Your task to perform on an android device: open a bookmark in the chrome app Image 0: 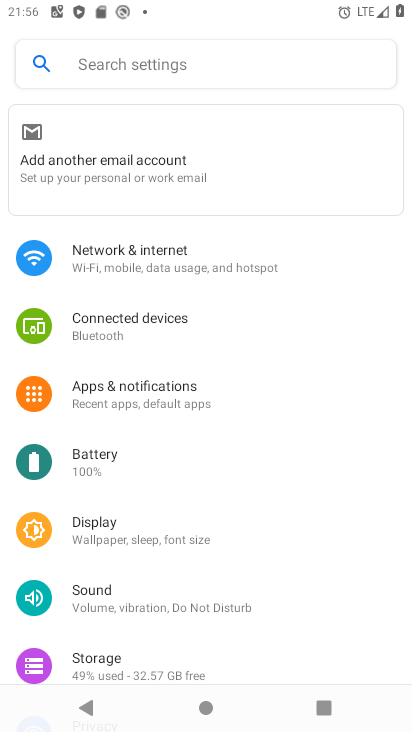
Step 0: press home button
Your task to perform on an android device: open a bookmark in the chrome app Image 1: 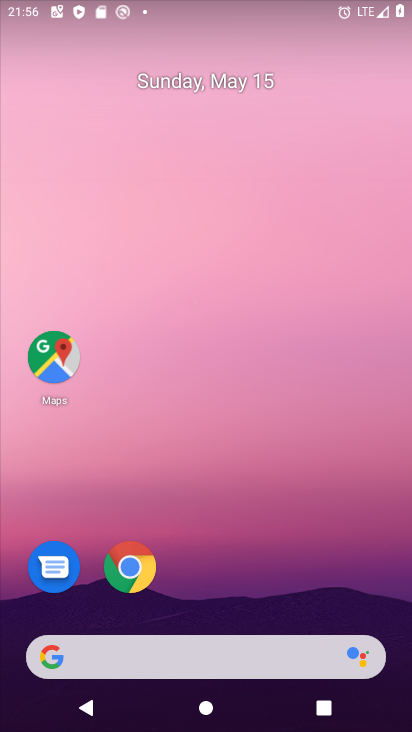
Step 1: click (154, 574)
Your task to perform on an android device: open a bookmark in the chrome app Image 2: 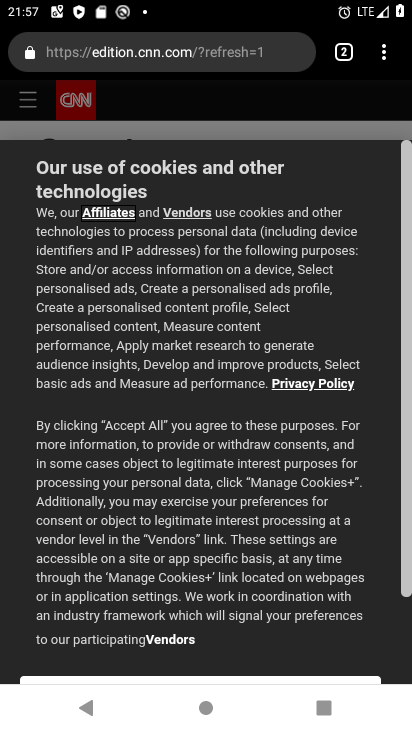
Step 2: click (376, 45)
Your task to perform on an android device: open a bookmark in the chrome app Image 3: 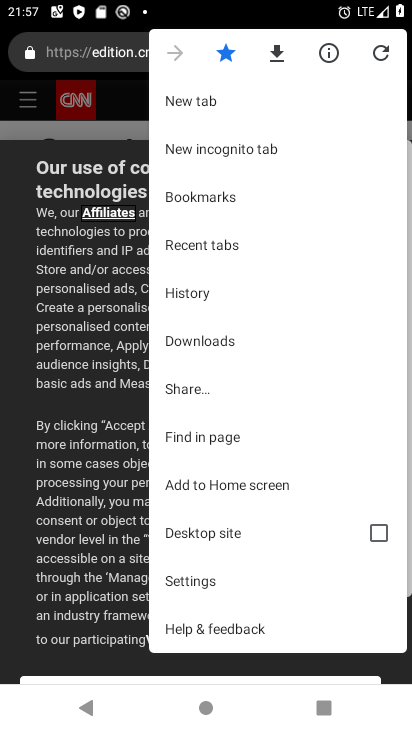
Step 3: click (250, 203)
Your task to perform on an android device: open a bookmark in the chrome app Image 4: 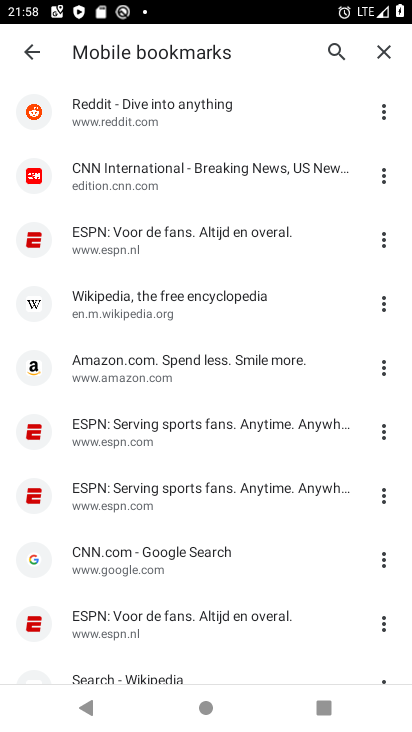
Step 4: click (162, 316)
Your task to perform on an android device: open a bookmark in the chrome app Image 5: 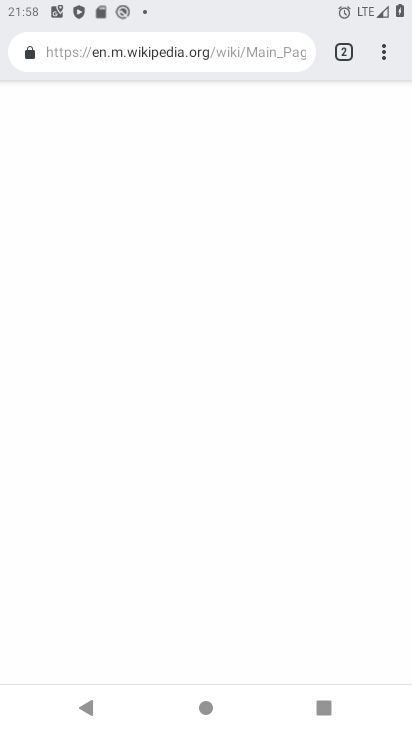
Step 5: task complete